Your task to perform on an android device: make emails show in primary in the gmail app Image 0: 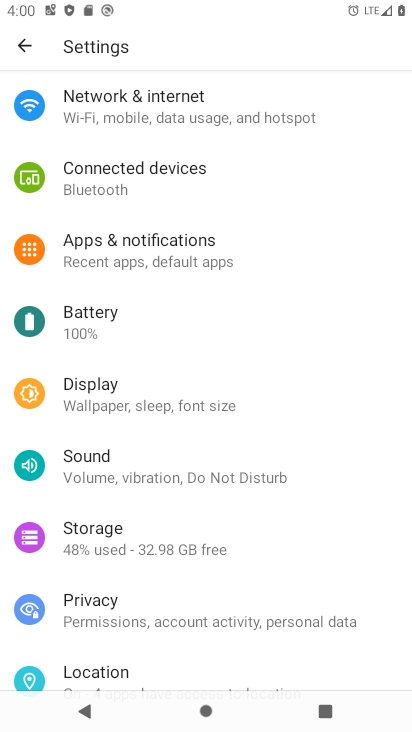
Step 0: press home button
Your task to perform on an android device: make emails show in primary in the gmail app Image 1: 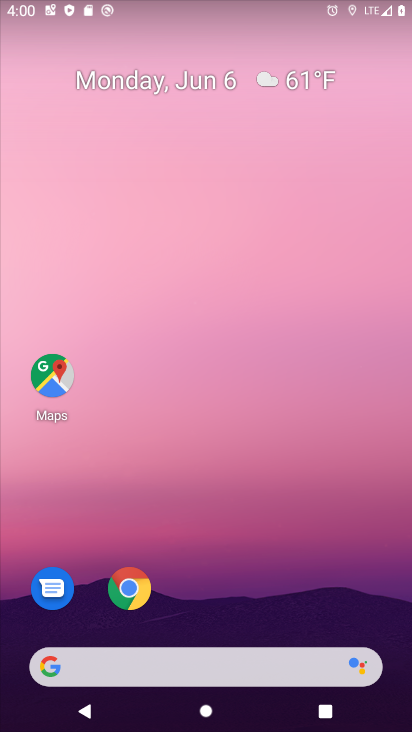
Step 1: drag from (205, 364) to (178, 61)
Your task to perform on an android device: make emails show in primary in the gmail app Image 2: 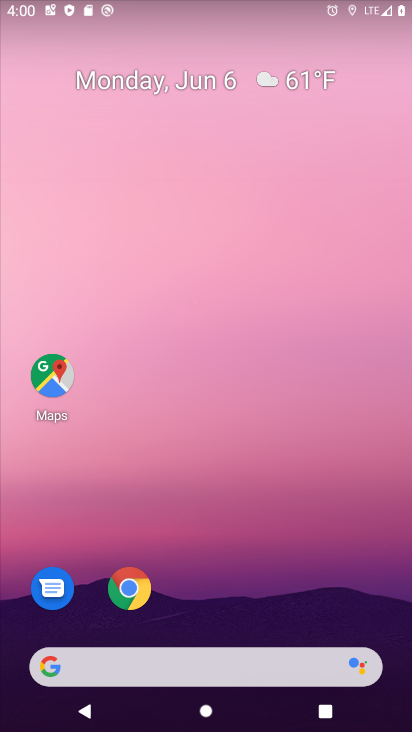
Step 2: drag from (236, 624) to (227, 86)
Your task to perform on an android device: make emails show in primary in the gmail app Image 3: 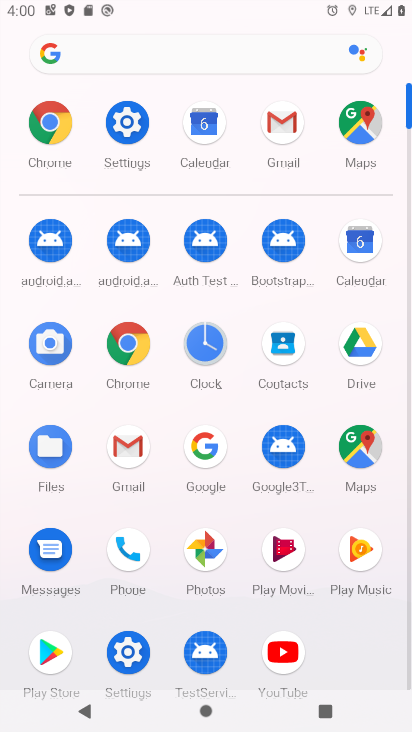
Step 3: click (289, 135)
Your task to perform on an android device: make emails show in primary in the gmail app Image 4: 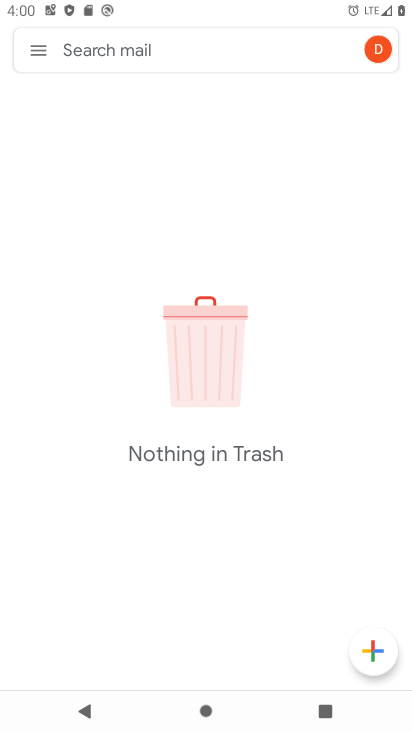
Step 4: click (33, 66)
Your task to perform on an android device: make emails show in primary in the gmail app Image 5: 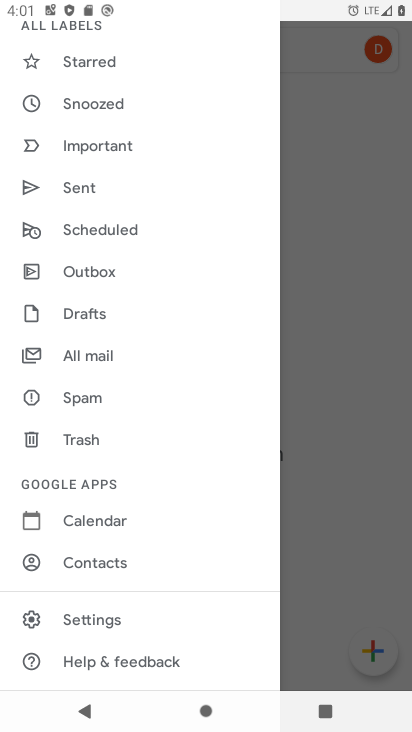
Step 5: click (102, 617)
Your task to perform on an android device: make emails show in primary in the gmail app Image 6: 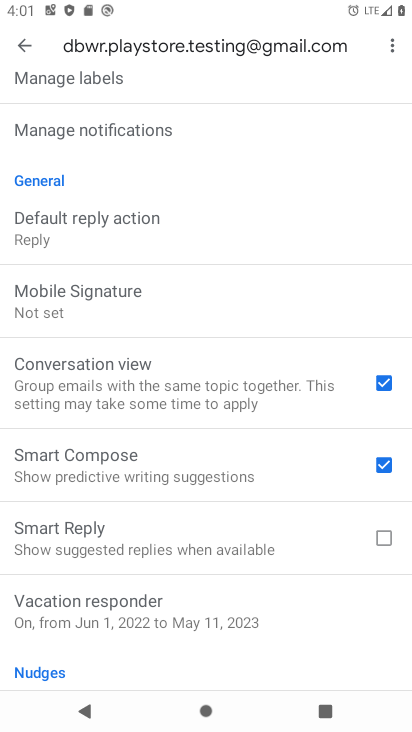
Step 6: task complete